Your task to perform on an android device: open the mobile data screen to see how much data has been used Image 0: 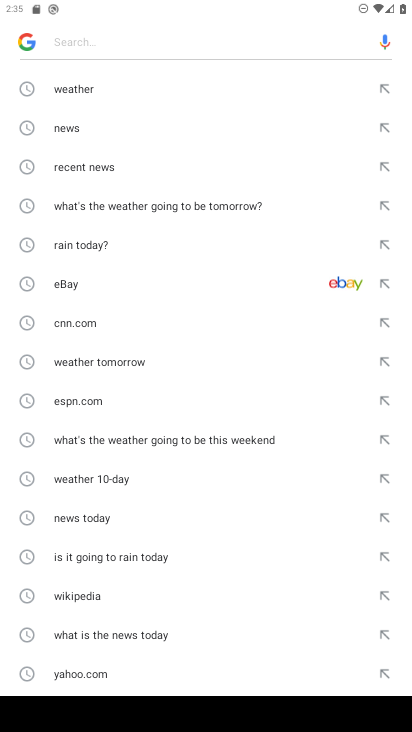
Step 0: press home button
Your task to perform on an android device: open the mobile data screen to see how much data has been used Image 1: 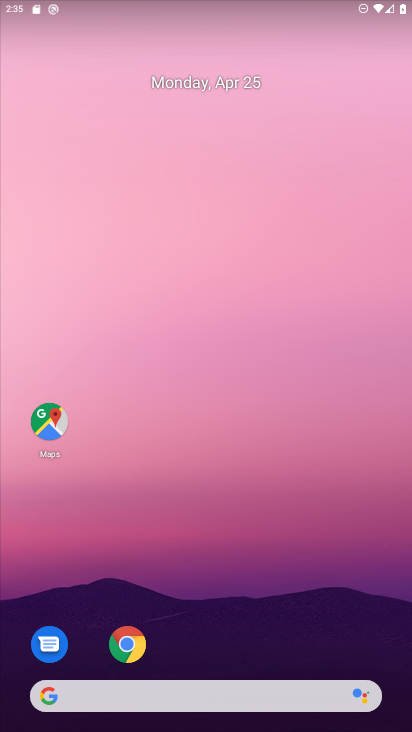
Step 1: drag from (265, 656) to (143, 277)
Your task to perform on an android device: open the mobile data screen to see how much data has been used Image 2: 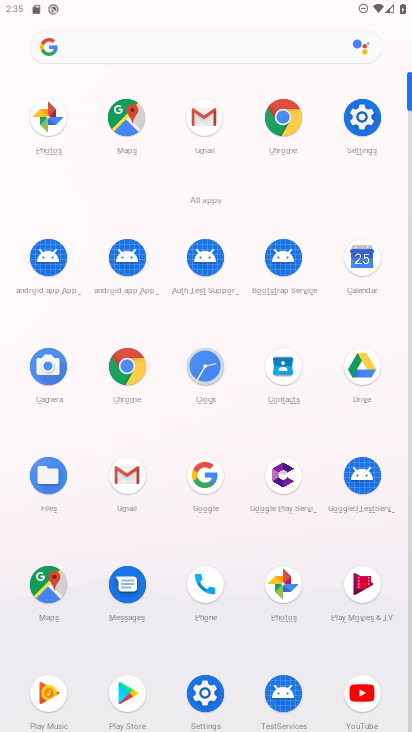
Step 2: click (356, 106)
Your task to perform on an android device: open the mobile data screen to see how much data has been used Image 3: 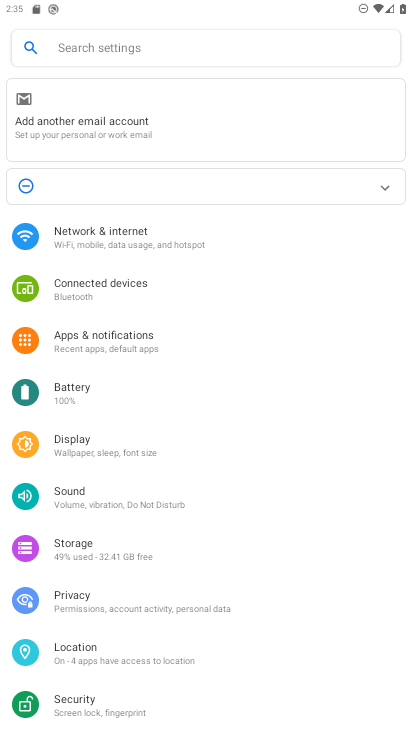
Step 3: click (223, 256)
Your task to perform on an android device: open the mobile data screen to see how much data has been used Image 4: 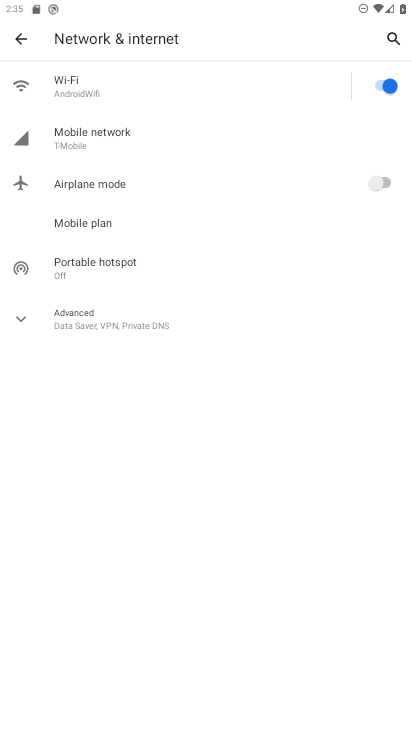
Step 4: click (141, 147)
Your task to perform on an android device: open the mobile data screen to see how much data has been used Image 5: 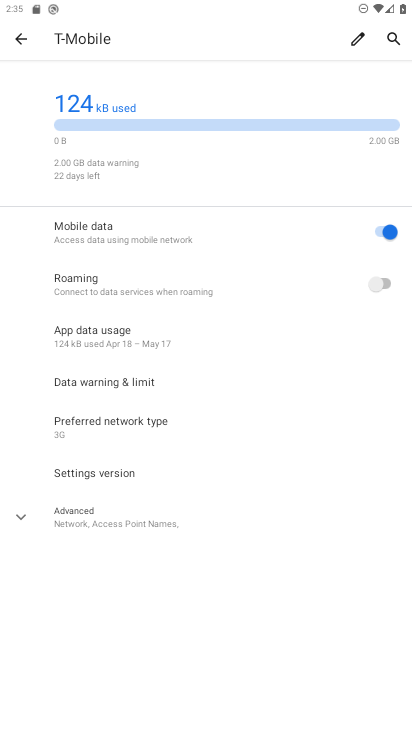
Step 5: task complete